Your task to perform on an android device: check google app version Image 0: 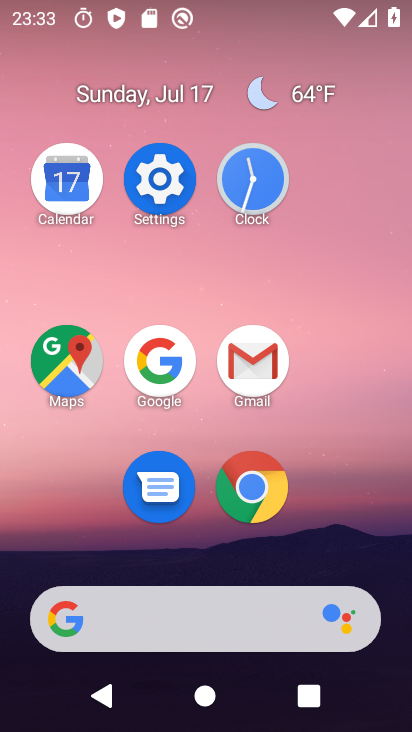
Step 0: click (155, 381)
Your task to perform on an android device: check google app version Image 1: 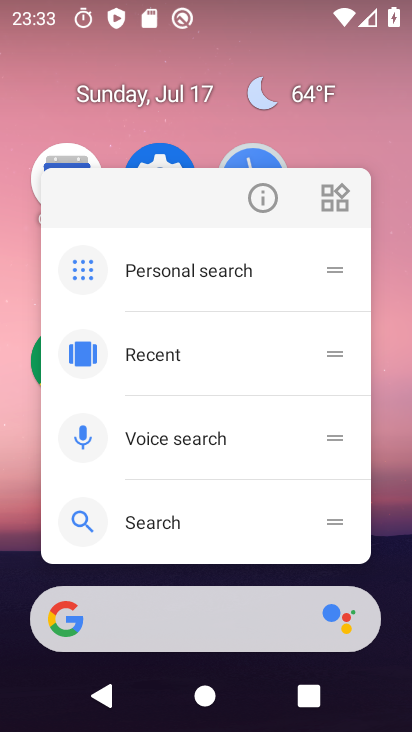
Step 1: click (269, 207)
Your task to perform on an android device: check google app version Image 2: 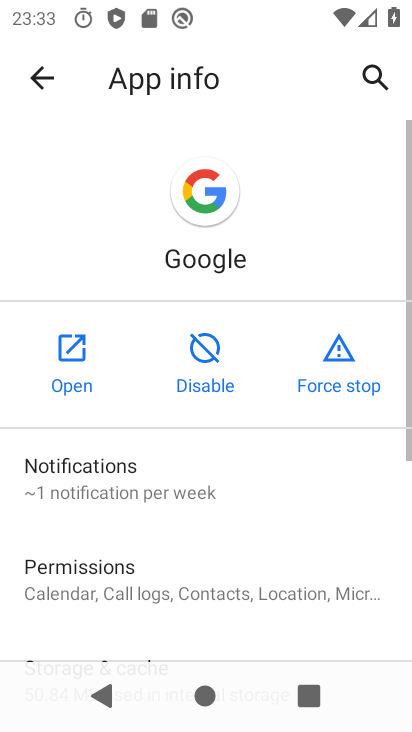
Step 2: drag from (208, 587) to (303, 82)
Your task to perform on an android device: check google app version Image 3: 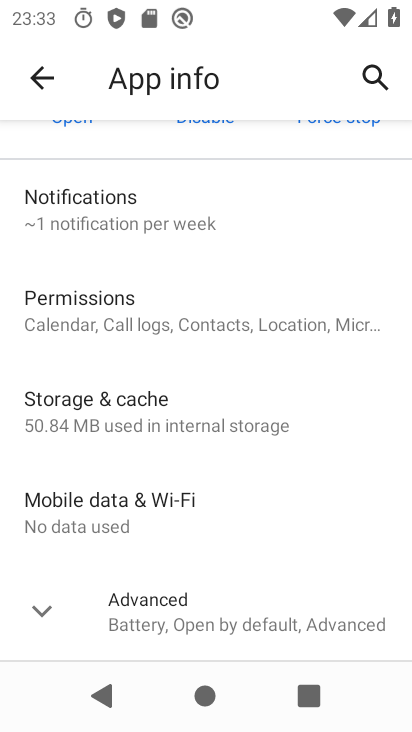
Step 3: click (153, 625)
Your task to perform on an android device: check google app version Image 4: 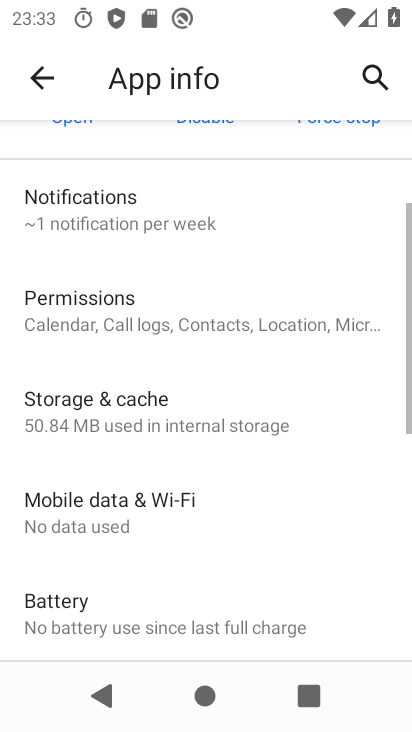
Step 4: task complete